Your task to perform on an android device: change your default location settings in chrome Image 0: 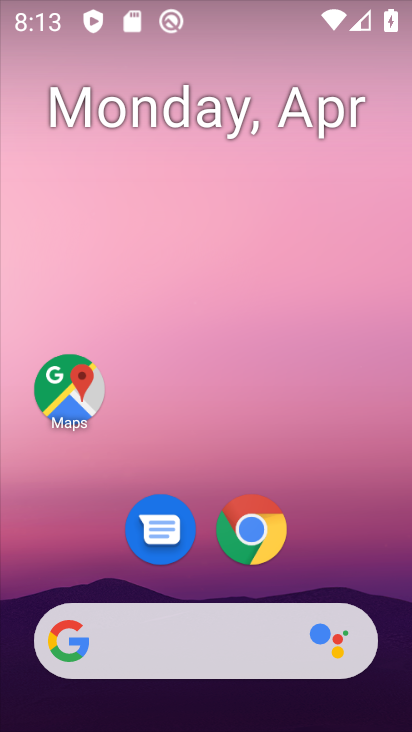
Step 0: drag from (355, 536) to (334, 118)
Your task to perform on an android device: change your default location settings in chrome Image 1: 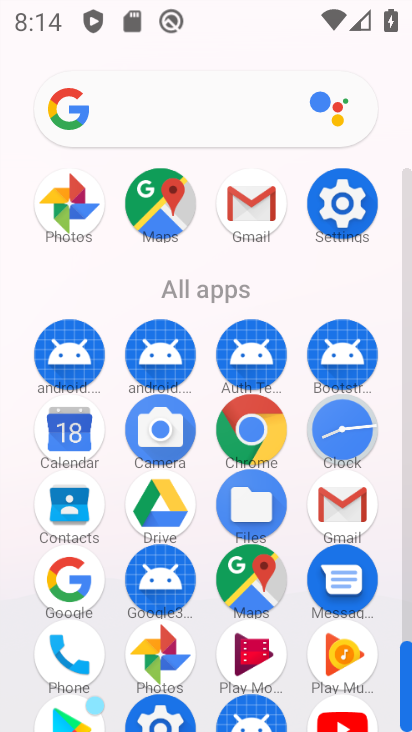
Step 1: click (265, 431)
Your task to perform on an android device: change your default location settings in chrome Image 2: 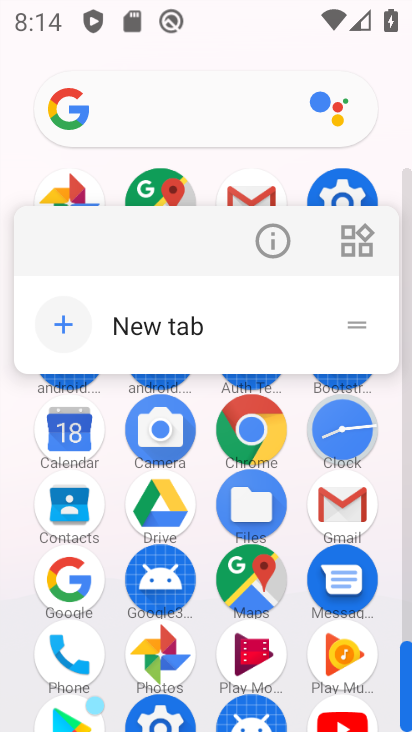
Step 2: click (273, 438)
Your task to perform on an android device: change your default location settings in chrome Image 3: 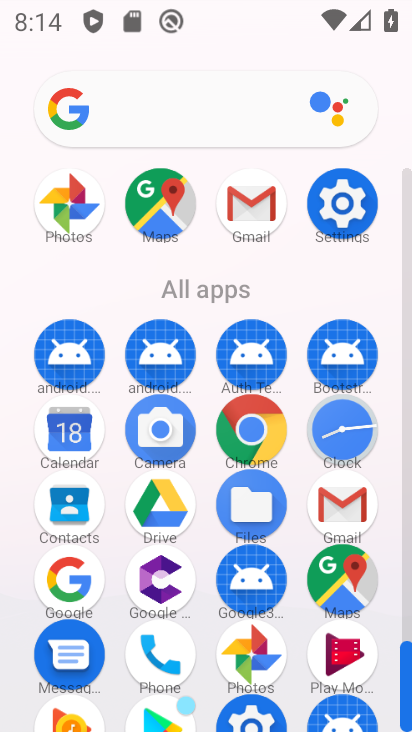
Step 3: click (271, 433)
Your task to perform on an android device: change your default location settings in chrome Image 4: 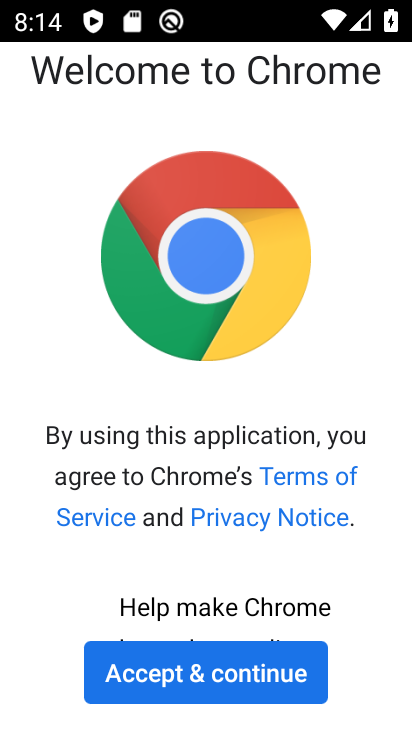
Step 4: click (266, 673)
Your task to perform on an android device: change your default location settings in chrome Image 5: 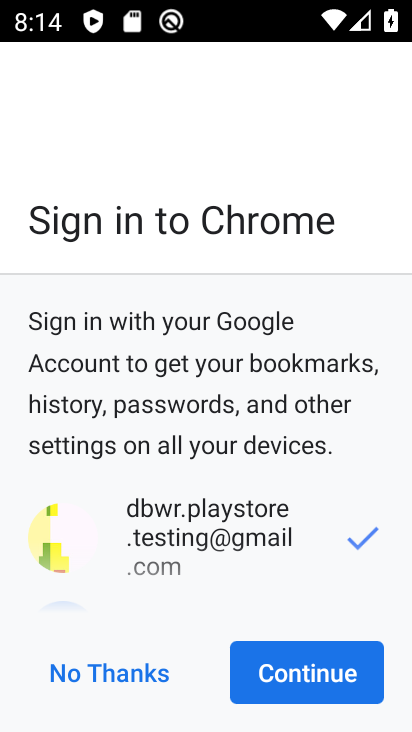
Step 5: click (282, 682)
Your task to perform on an android device: change your default location settings in chrome Image 6: 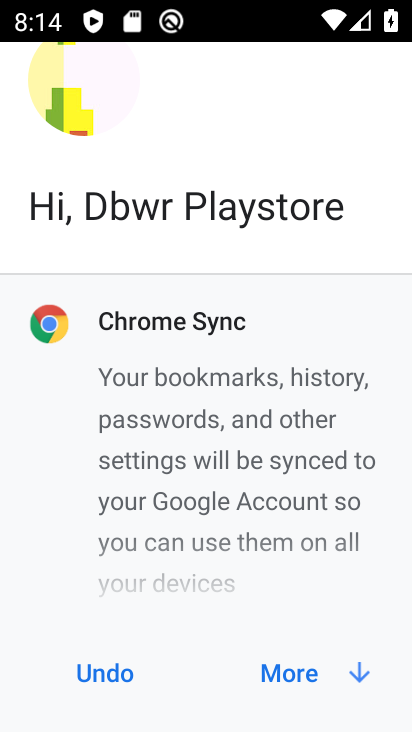
Step 6: click (284, 681)
Your task to perform on an android device: change your default location settings in chrome Image 7: 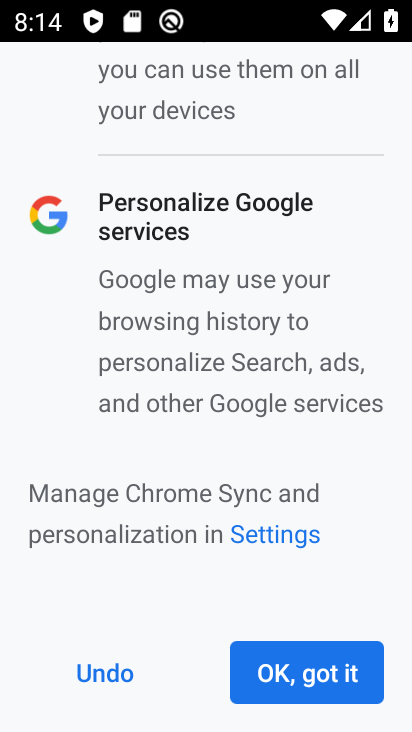
Step 7: click (288, 681)
Your task to perform on an android device: change your default location settings in chrome Image 8: 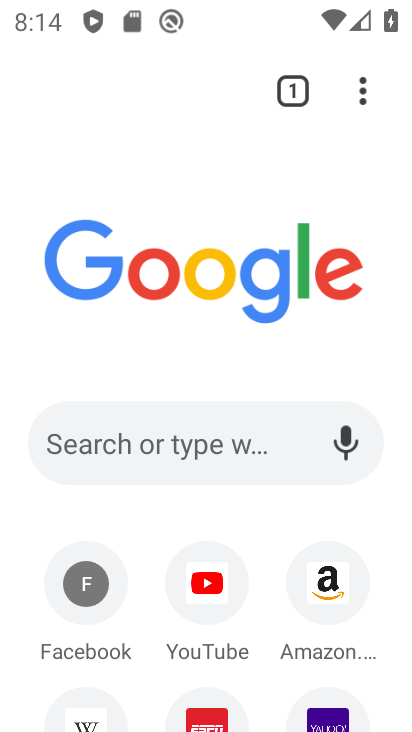
Step 8: click (352, 101)
Your task to perform on an android device: change your default location settings in chrome Image 9: 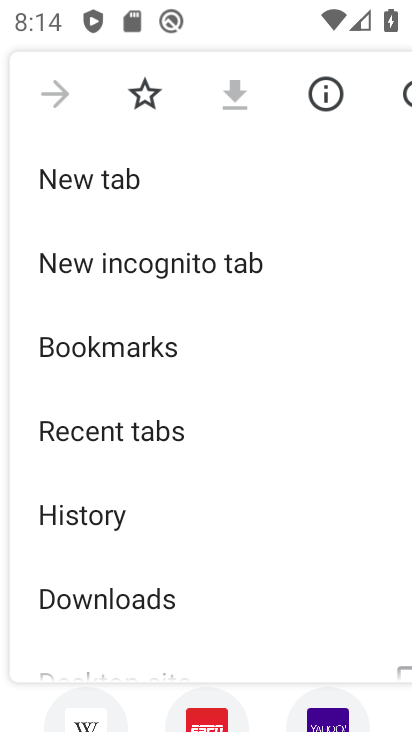
Step 9: drag from (291, 563) to (316, 254)
Your task to perform on an android device: change your default location settings in chrome Image 10: 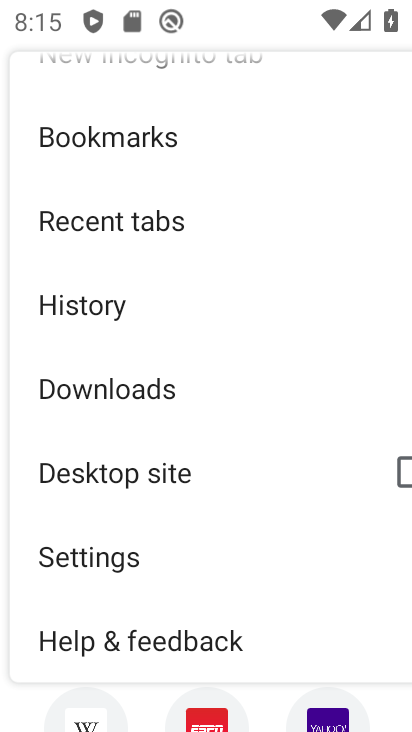
Step 10: click (99, 560)
Your task to perform on an android device: change your default location settings in chrome Image 11: 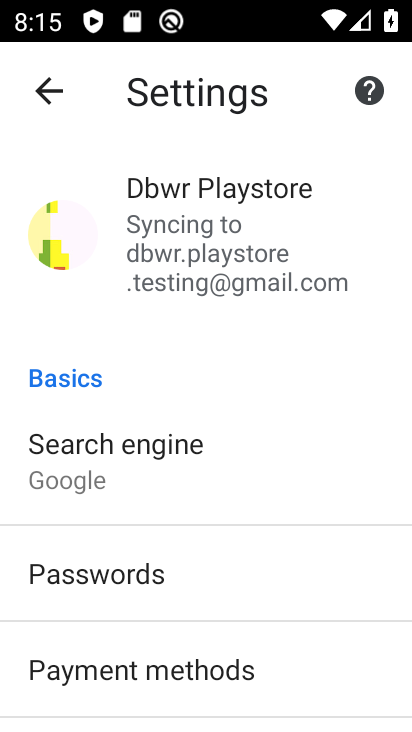
Step 11: drag from (302, 657) to (277, 302)
Your task to perform on an android device: change your default location settings in chrome Image 12: 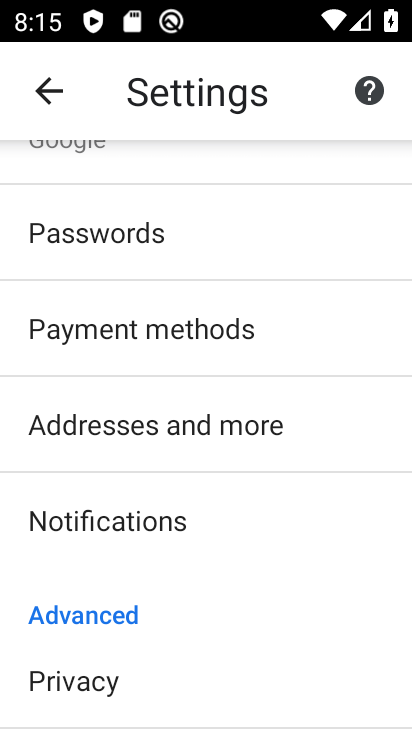
Step 12: drag from (279, 581) to (293, 319)
Your task to perform on an android device: change your default location settings in chrome Image 13: 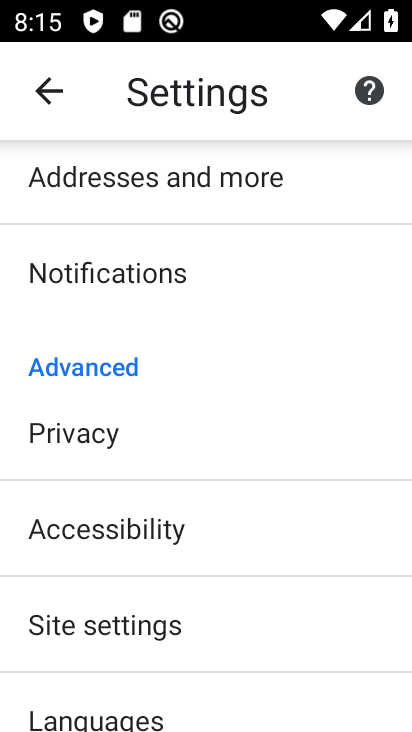
Step 13: drag from (239, 601) to (259, 341)
Your task to perform on an android device: change your default location settings in chrome Image 14: 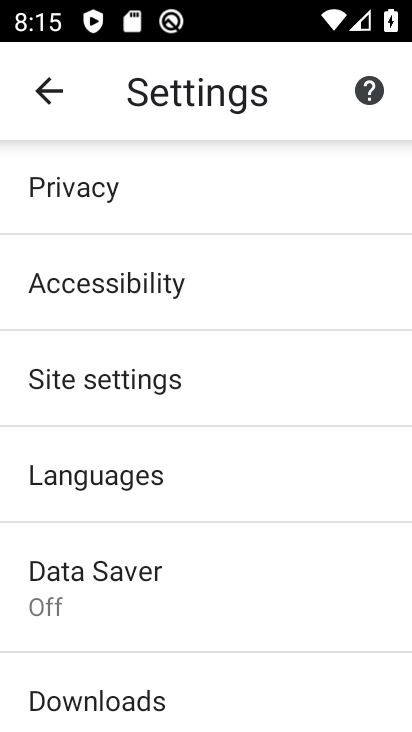
Step 14: drag from (234, 557) to (243, 346)
Your task to perform on an android device: change your default location settings in chrome Image 15: 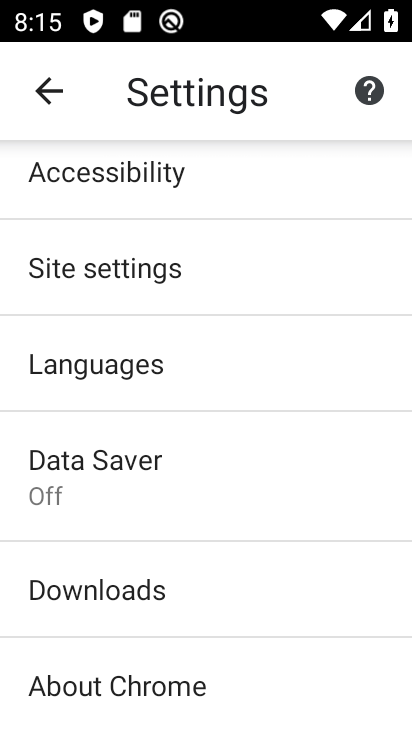
Step 15: click (114, 263)
Your task to perform on an android device: change your default location settings in chrome Image 16: 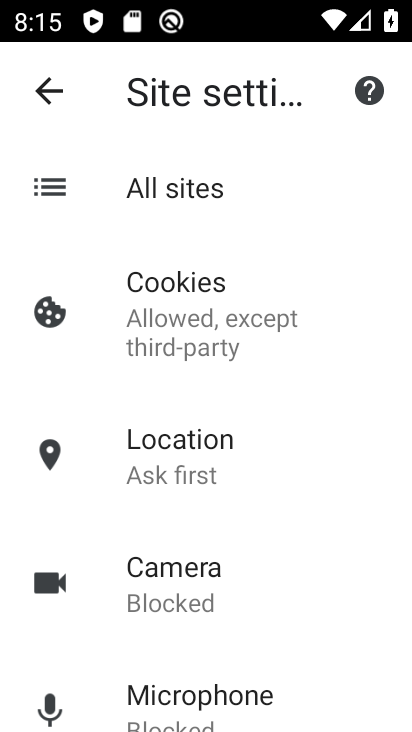
Step 16: click (198, 462)
Your task to perform on an android device: change your default location settings in chrome Image 17: 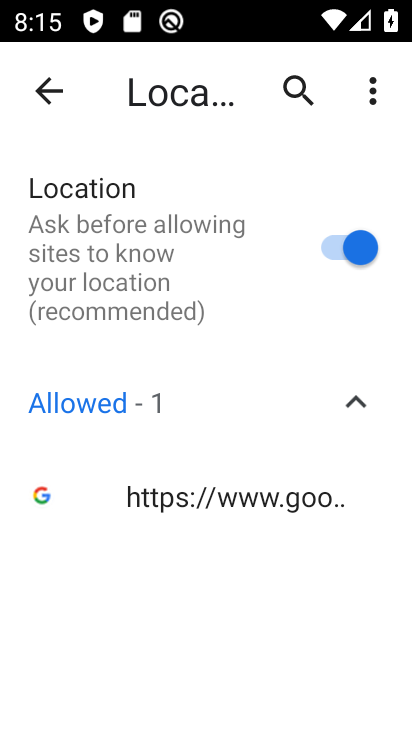
Step 17: click (337, 248)
Your task to perform on an android device: change your default location settings in chrome Image 18: 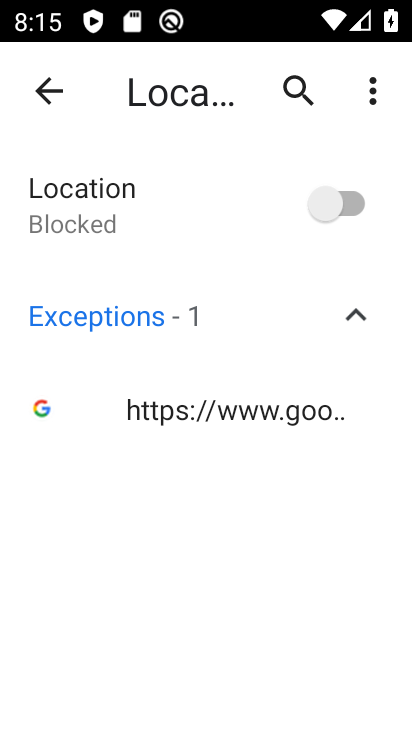
Step 18: task complete